Your task to perform on an android device: change alarm snooze length Image 0: 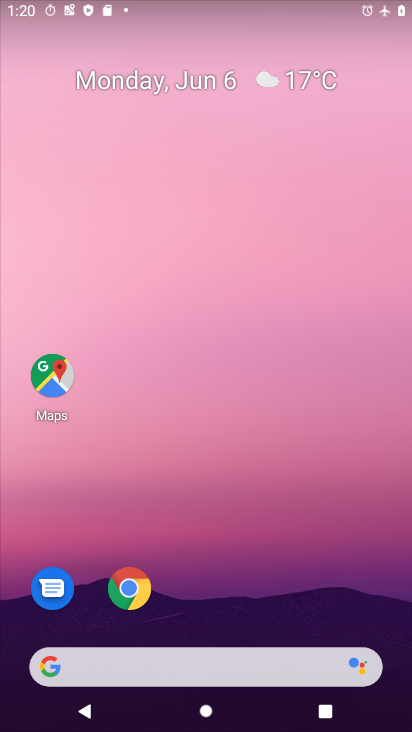
Step 0: drag from (265, 573) to (270, 121)
Your task to perform on an android device: change alarm snooze length Image 1: 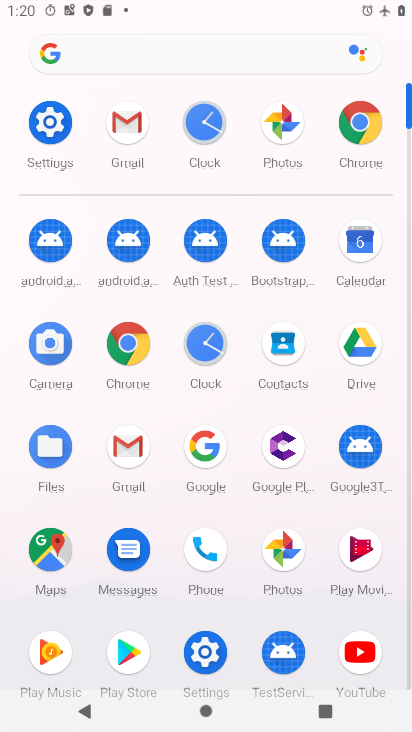
Step 1: click (205, 122)
Your task to perform on an android device: change alarm snooze length Image 2: 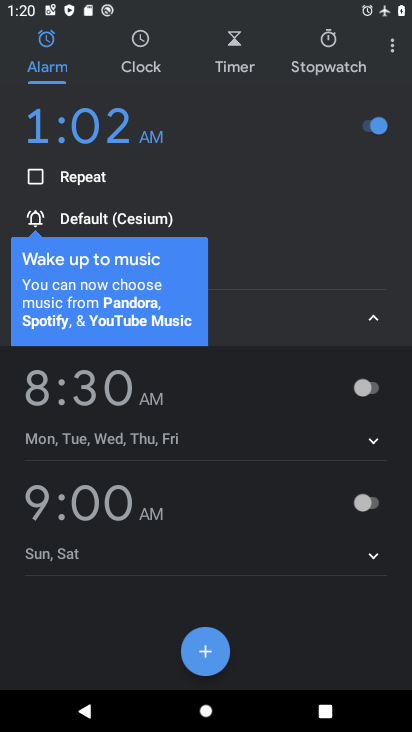
Step 2: click (389, 41)
Your task to perform on an android device: change alarm snooze length Image 3: 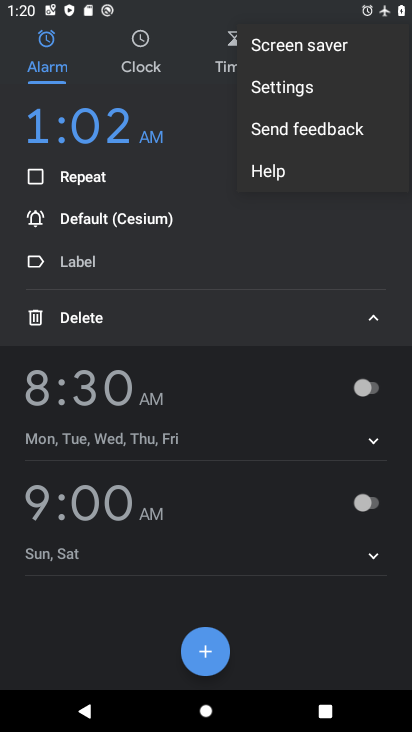
Step 3: click (282, 93)
Your task to perform on an android device: change alarm snooze length Image 4: 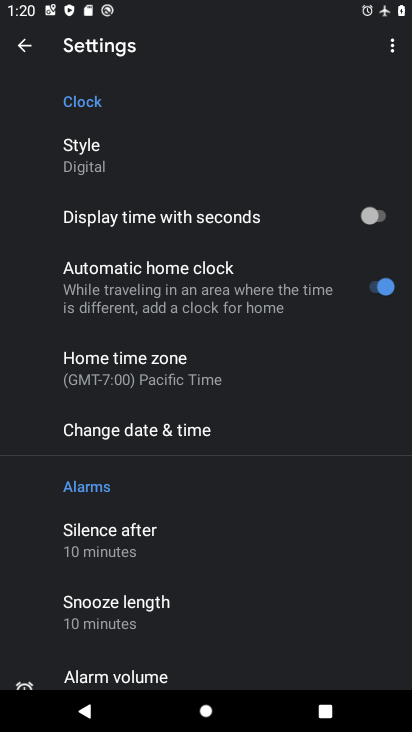
Step 4: click (156, 604)
Your task to perform on an android device: change alarm snooze length Image 5: 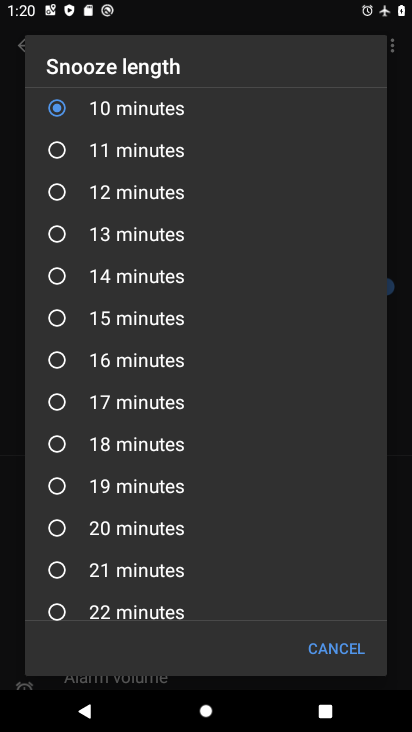
Step 5: click (108, 163)
Your task to perform on an android device: change alarm snooze length Image 6: 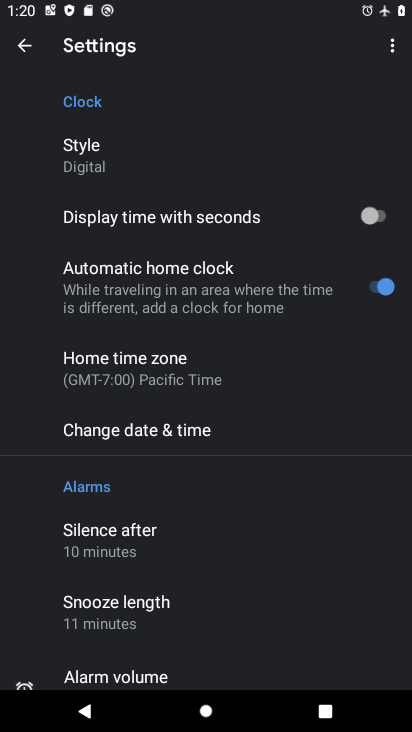
Step 6: task complete